Your task to perform on an android device: open a bookmark in the chrome app Image 0: 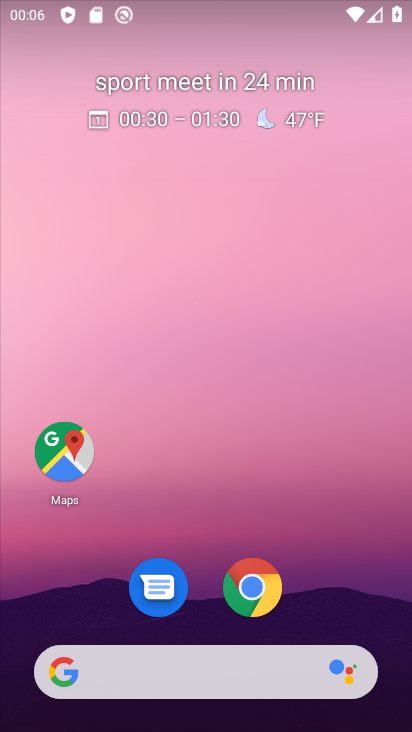
Step 0: click (246, 578)
Your task to perform on an android device: open a bookmark in the chrome app Image 1: 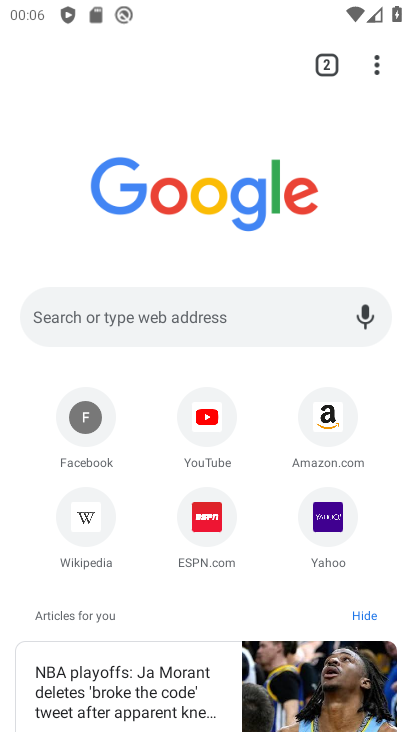
Step 1: click (377, 66)
Your task to perform on an android device: open a bookmark in the chrome app Image 2: 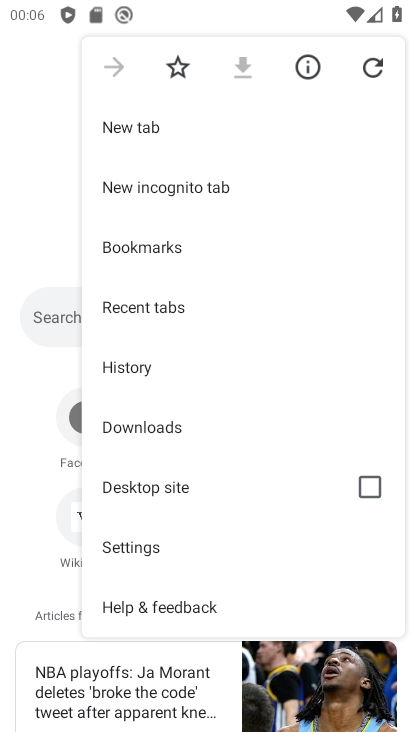
Step 2: click (133, 242)
Your task to perform on an android device: open a bookmark in the chrome app Image 3: 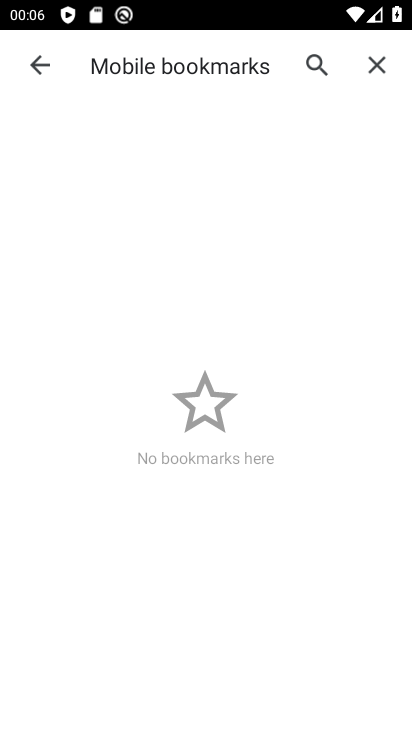
Step 3: task complete